Your task to perform on an android device: add a label to a message in the gmail app Image 0: 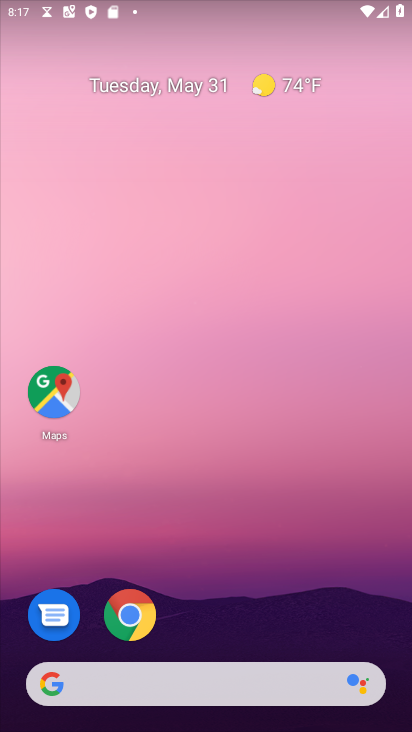
Step 0: drag from (227, 440) to (334, 90)
Your task to perform on an android device: add a label to a message in the gmail app Image 1: 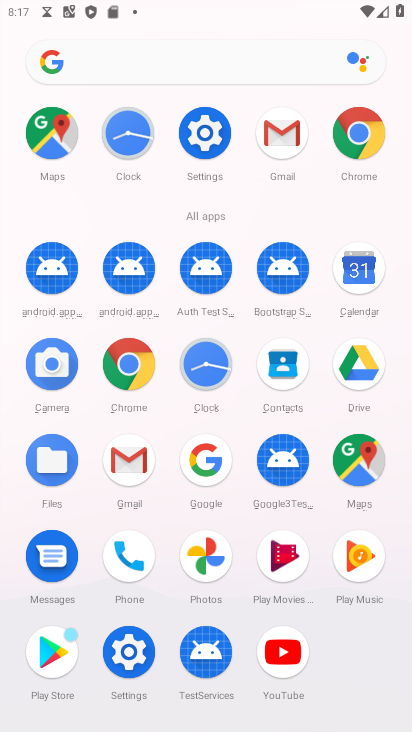
Step 1: click (295, 133)
Your task to perform on an android device: add a label to a message in the gmail app Image 2: 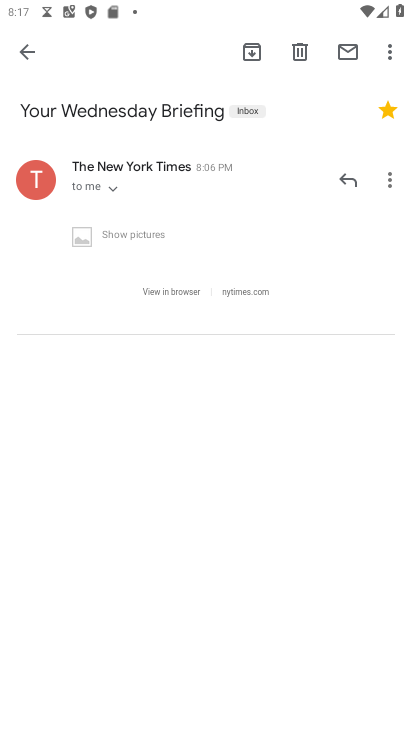
Step 2: click (244, 113)
Your task to perform on an android device: add a label to a message in the gmail app Image 3: 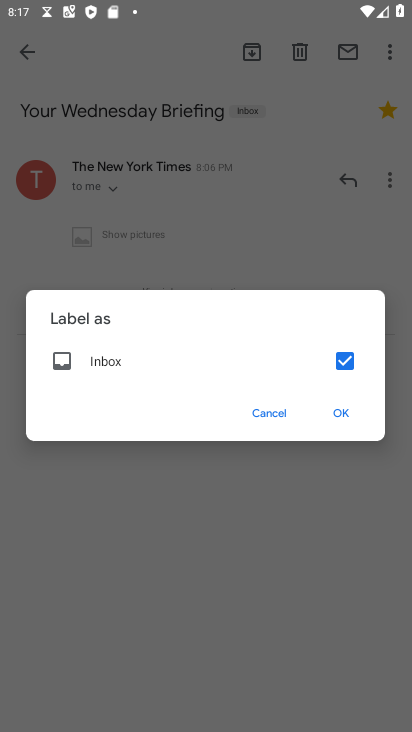
Step 3: task complete